Your task to perform on an android device: What's the weather going to be this weekend? Image 0: 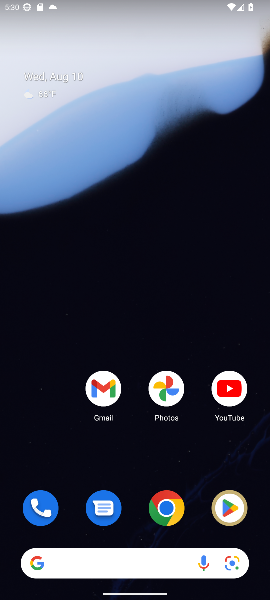
Step 0: drag from (46, 449) to (49, 119)
Your task to perform on an android device: What's the weather going to be this weekend? Image 1: 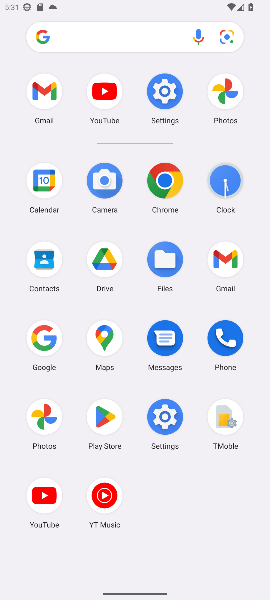
Step 1: click (37, 341)
Your task to perform on an android device: What's the weather going to be this weekend? Image 2: 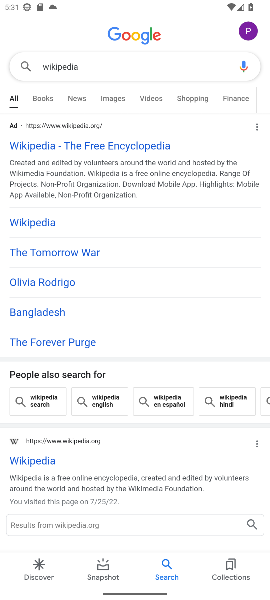
Step 2: click (116, 65)
Your task to perform on an android device: What's the weather going to be this weekend? Image 3: 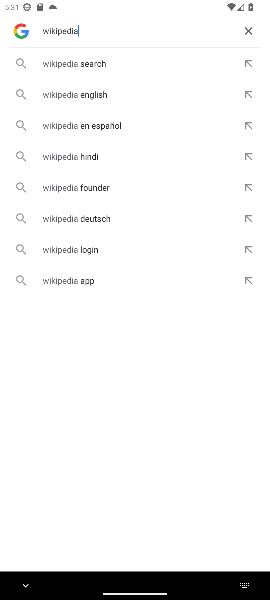
Step 3: click (250, 33)
Your task to perform on an android device: What's the weather going to be this weekend? Image 4: 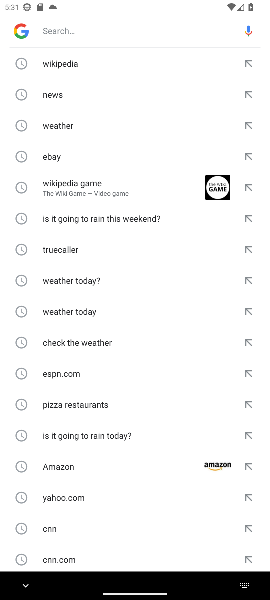
Step 4: type "What's the weather going to be this weekend?"
Your task to perform on an android device: What's the weather going to be this weekend? Image 5: 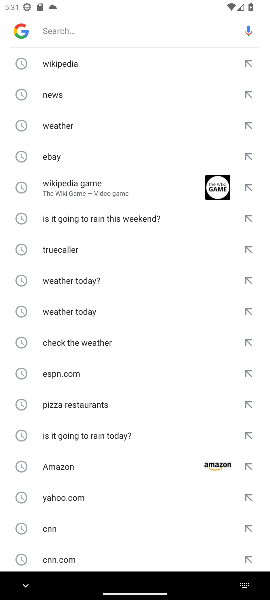
Step 5: click (95, 34)
Your task to perform on an android device: What's the weather going to be this weekend? Image 6: 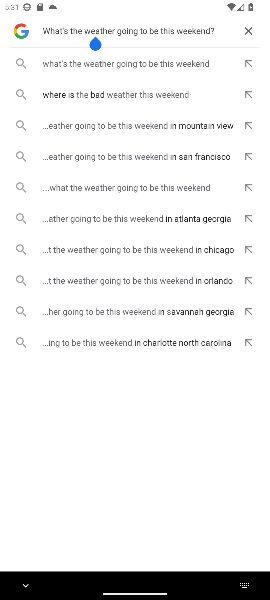
Step 6: press enter
Your task to perform on an android device: What's the weather going to be this weekend? Image 7: 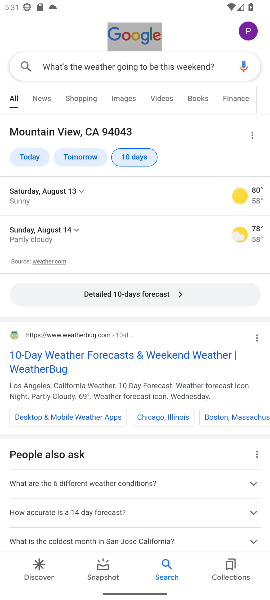
Step 7: task complete